Your task to perform on an android device: Find coffee shops on Maps Image 0: 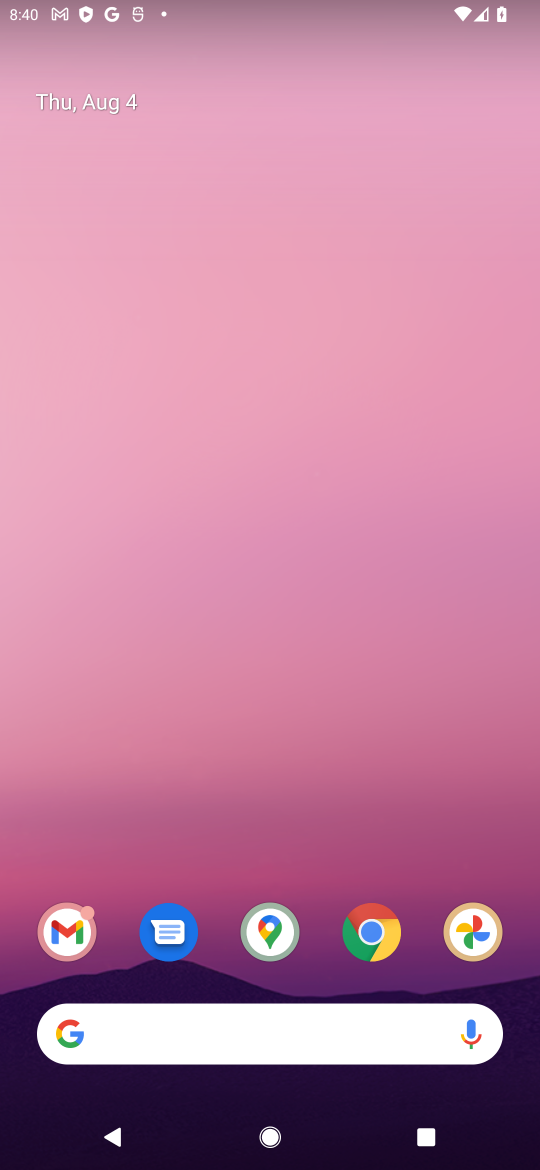
Step 0: press back button
Your task to perform on an android device: Find coffee shops on Maps Image 1: 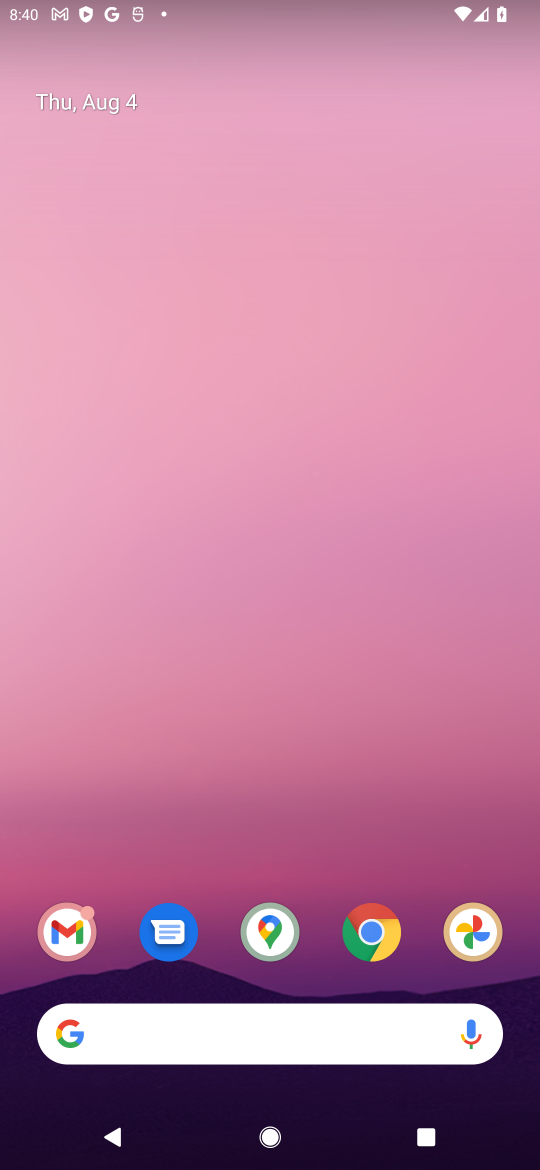
Step 1: click (257, 949)
Your task to perform on an android device: Find coffee shops on Maps Image 2: 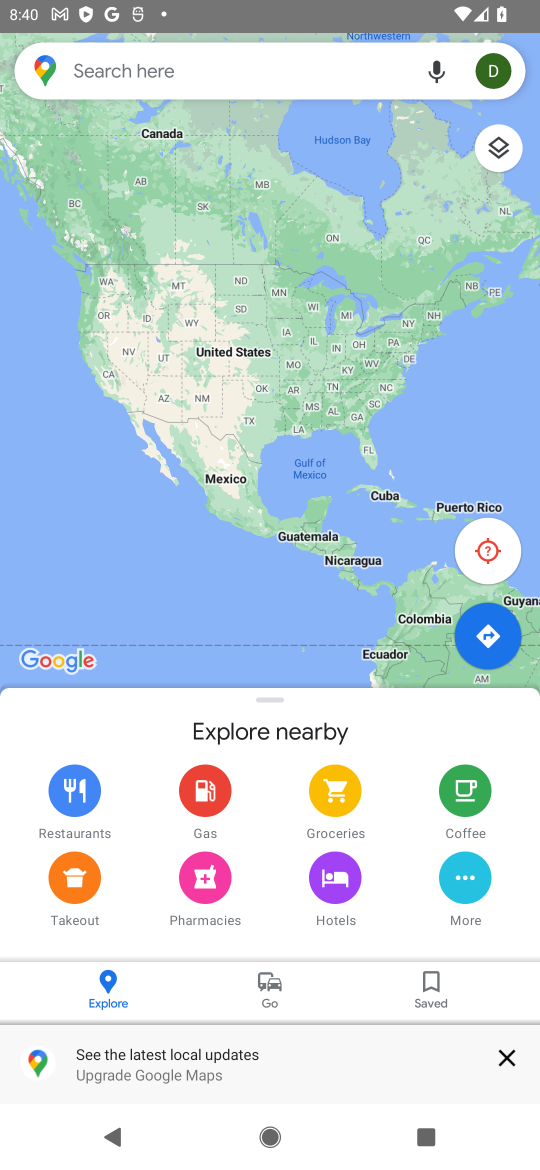
Step 2: click (204, 63)
Your task to perform on an android device: Find coffee shops on Maps Image 3: 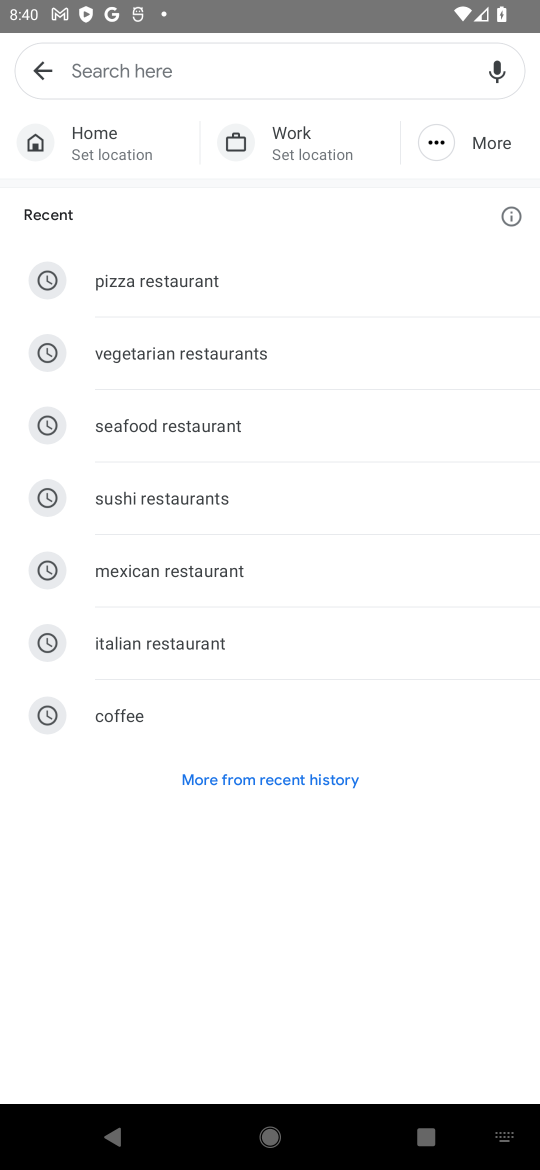
Step 3: type "coffee shops"
Your task to perform on an android device: Find coffee shops on Maps Image 4: 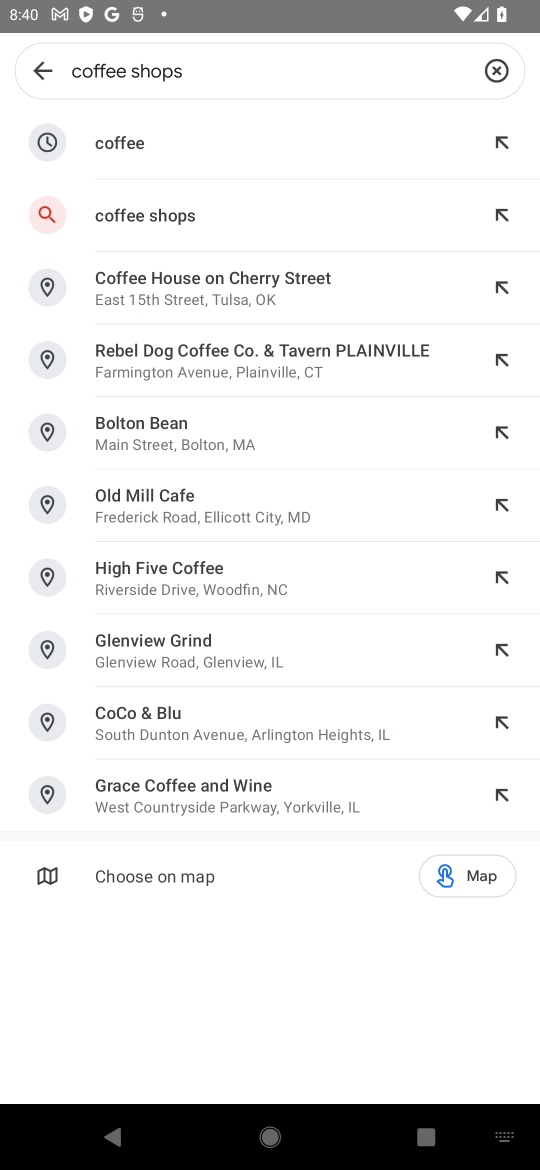
Step 4: click (183, 214)
Your task to perform on an android device: Find coffee shops on Maps Image 5: 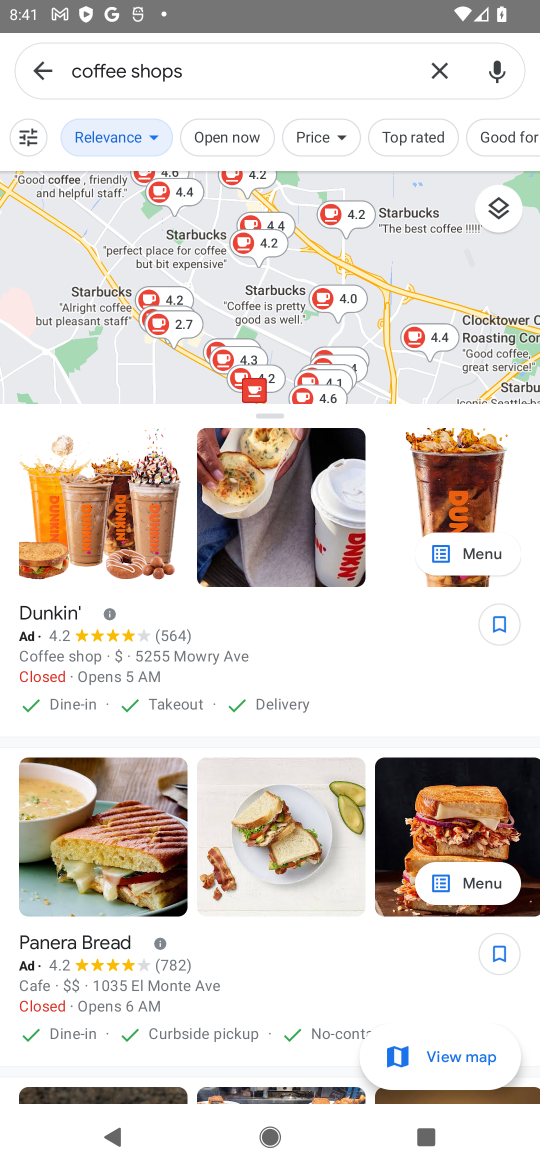
Step 5: task complete